Your task to perform on an android device: stop showing notifications on the lock screen Image 0: 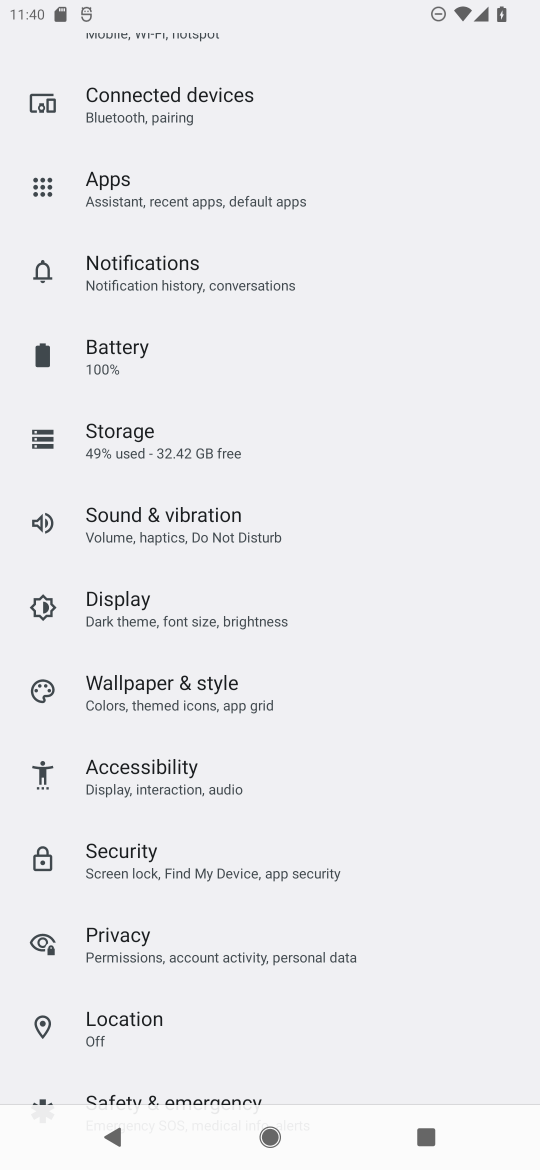
Step 0: click (242, 282)
Your task to perform on an android device: stop showing notifications on the lock screen Image 1: 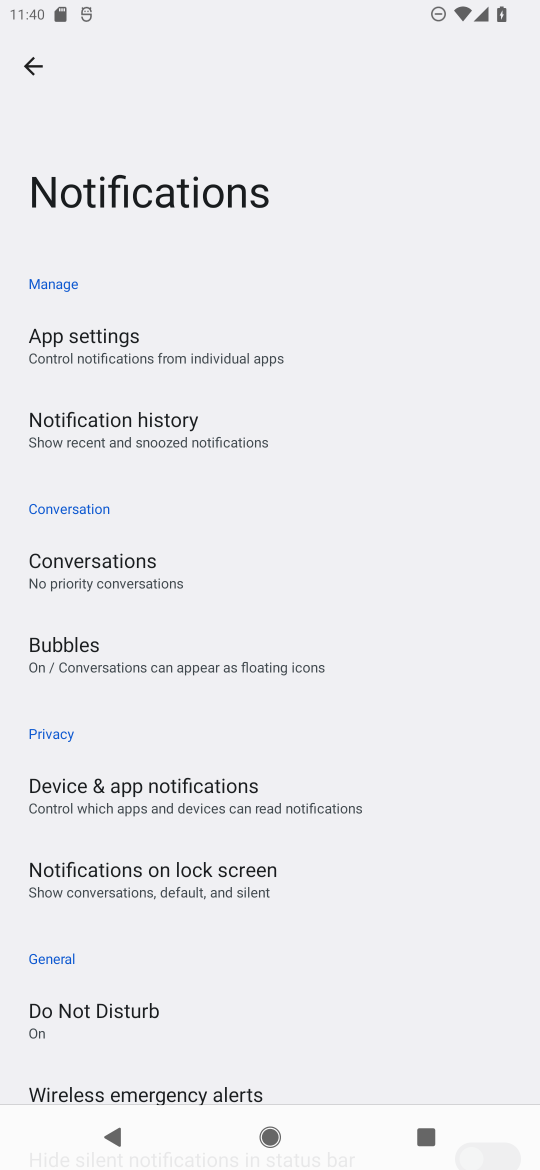
Step 1: click (240, 899)
Your task to perform on an android device: stop showing notifications on the lock screen Image 2: 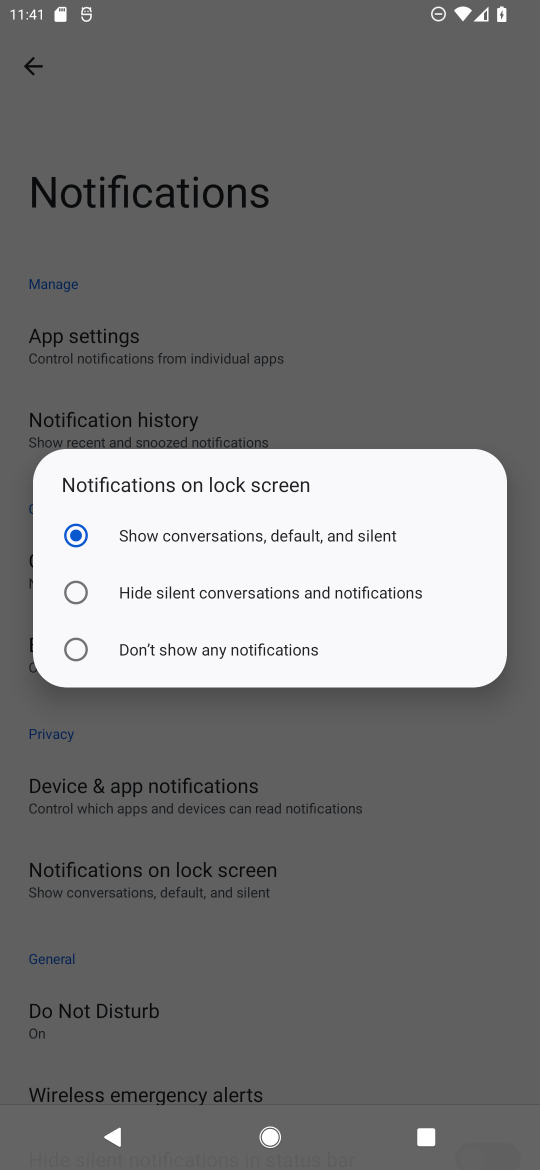
Step 2: task complete